Your task to perform on an android device: Open Chrome and go to the settings page Image 0: 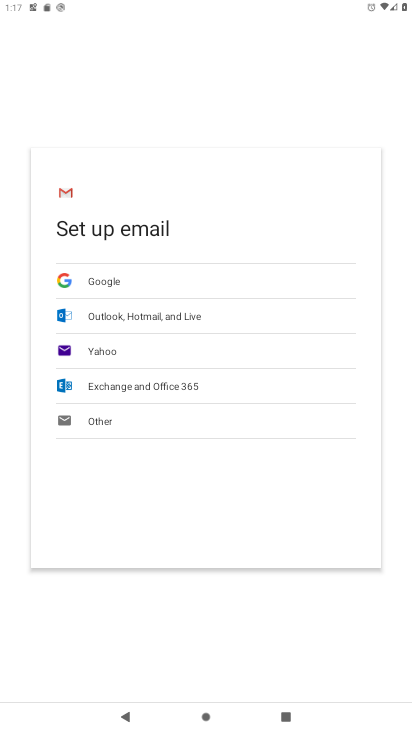
Step 0: press home button
Your task to perform on an android device: Open Chrome and go to the settings page Image 1: 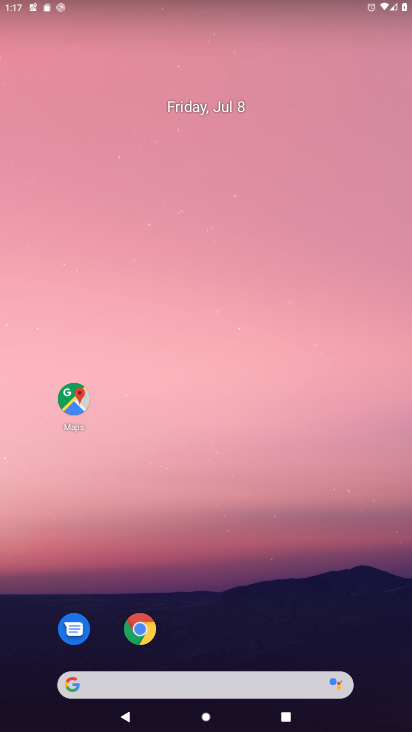
Step 1: click (134, 632)
Your task to perform on an android device: Open Chrome and go to the settings page Image 2: 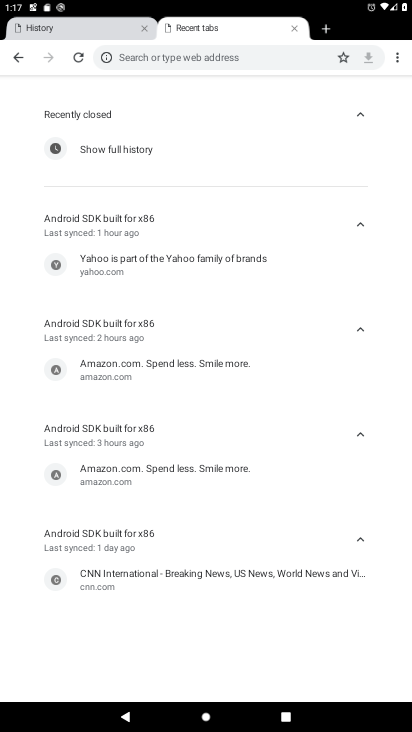
Step 2: click (396, 59)
Your task to perform on an android device: Open Chrome and go to the settings page Image 3: 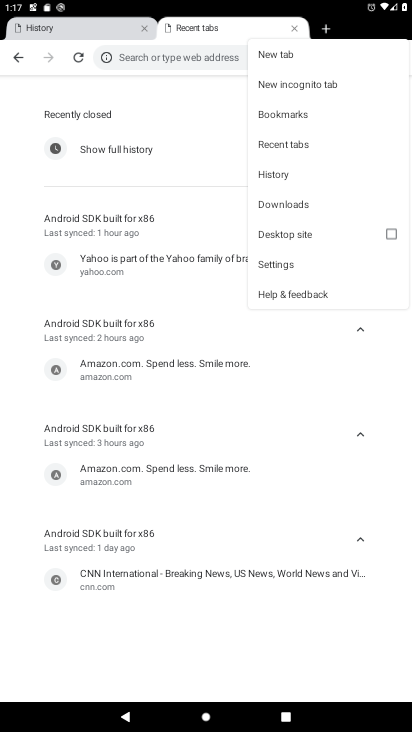
Step 3: click (295, 263)
Your task to perform on an android device: Open Chrome and go to the settings page Image 4: 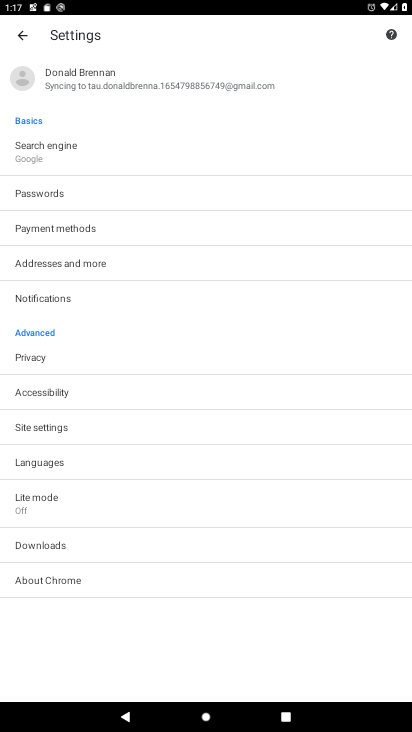
Step 4: task complete